Your task to perform on an android device: Show the shopping cart on walmart.com. Add macbook pro 13 inch to the cart on walmart.com Image 0: 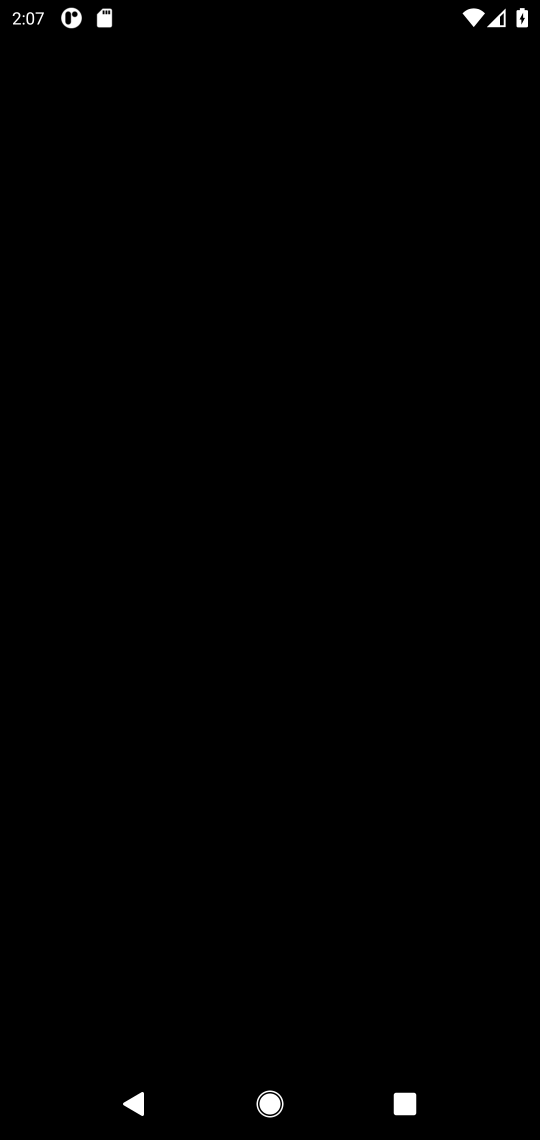
Step 0: press home button
Your task to perform on an android device: Show the shopping cart on walmart.com. Add macbook pro 13 inch to the cart on walmart.com Image 1: 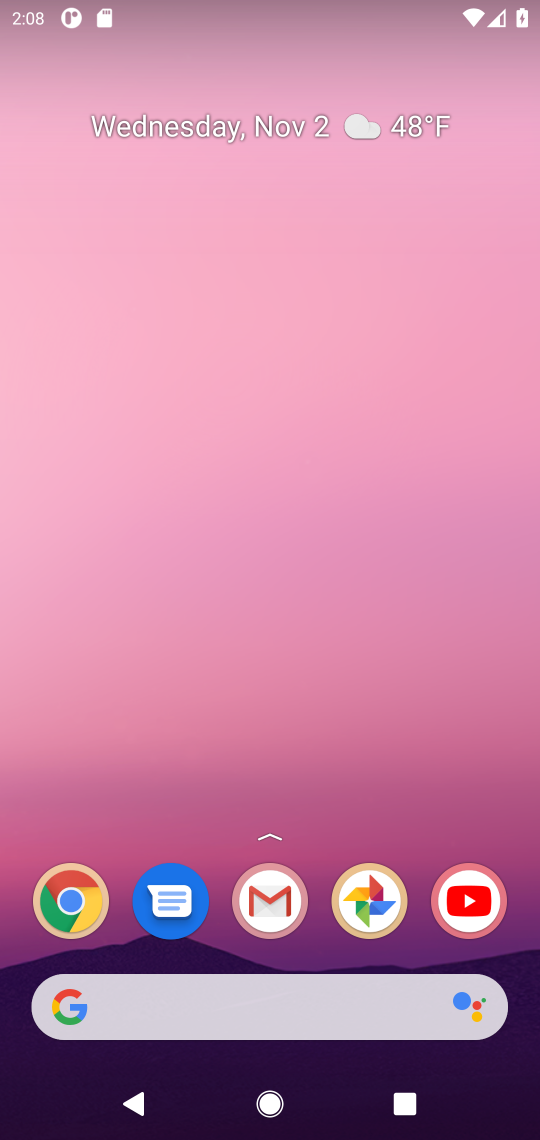
Step 1: drag from (221, 952) to (283, 218)
Your task to perform on an android device: Show the shopping cart on walmart.com. Add macbook pro 13 inch to the cart on walmart.com Image 2: 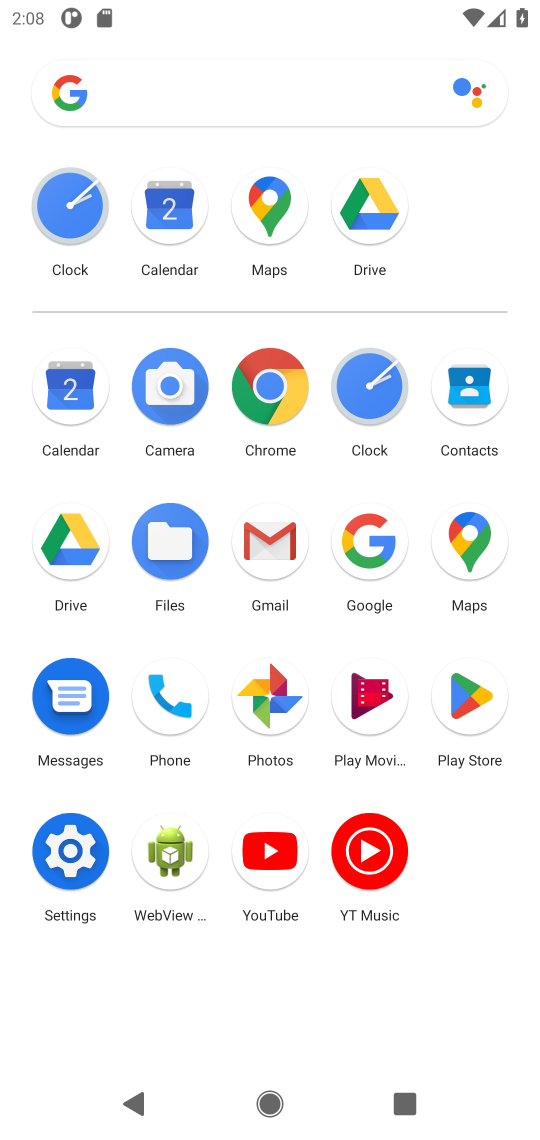
Step 2: click (278, 388)
Your task to perform on an android device: Show the shopping cart on walmart.com. Add macbook pro 13 inch to the cart on walmart.com Image 3: 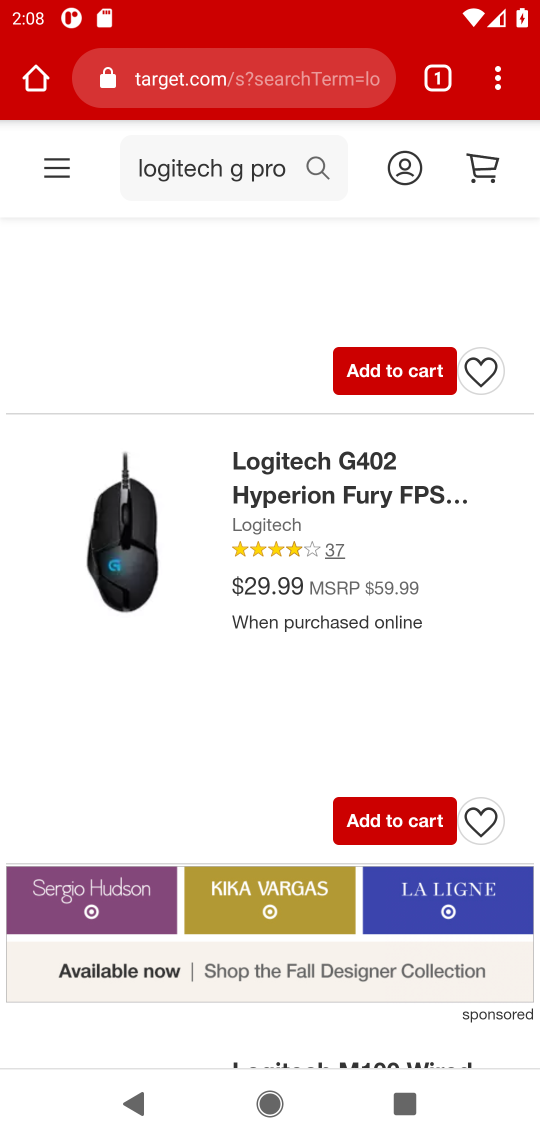
Step 3: click (287, 72)
Your task to perform on an android device: Show the shopping cart on walmart.com. Add macbook pro 13 inch to the cart on walmart.com Image 4: 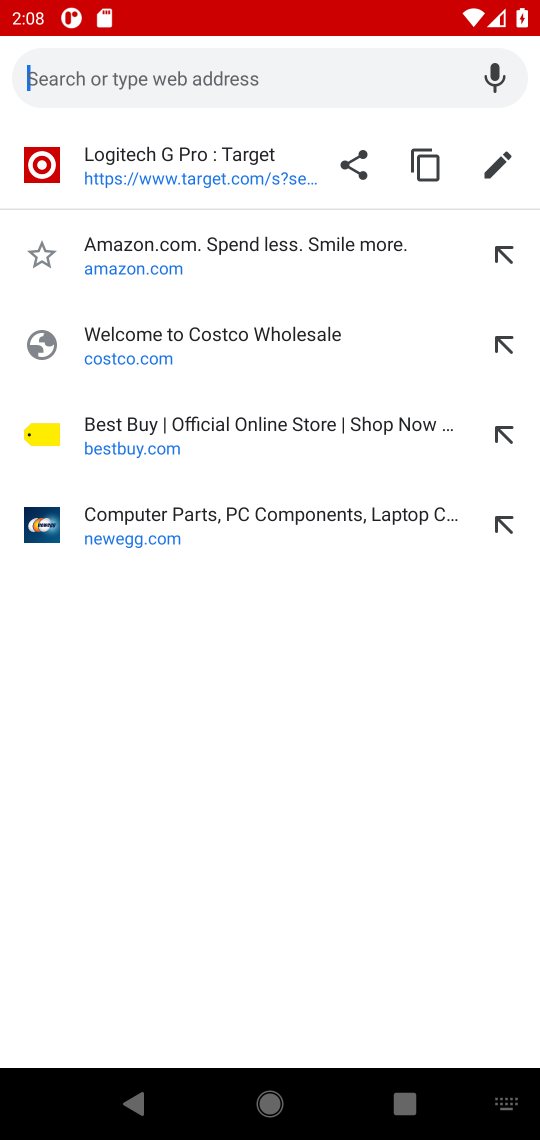
Step 4: type "walmart.com"
Your task to perform on an android device: Show the shopping cart on walmart.com. Add macbook pro 13 inch to the cart on walmart.com Image 5: 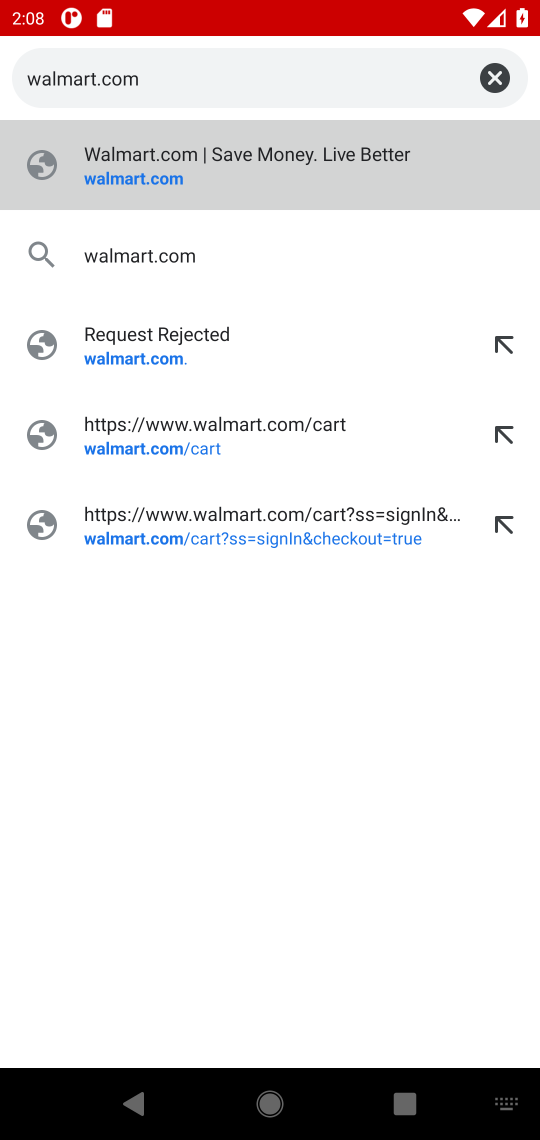
Step 5: press enter
Your task to perform on an android device: Show the shopping cart on walmart.com. Add macbook pro 13 inch to the cart on walmart.com Image 6: 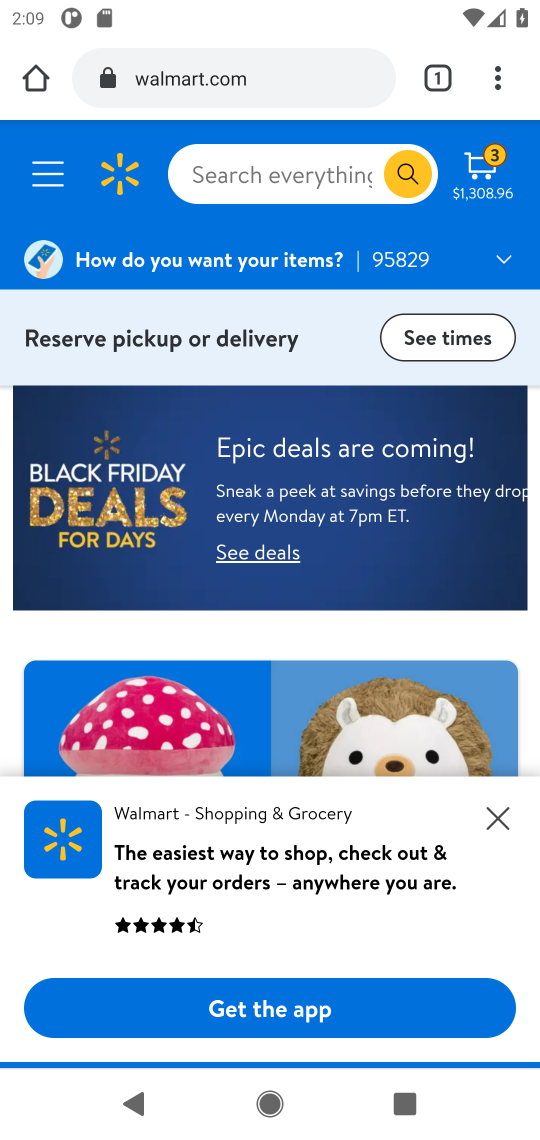
Step 6: click (279, 169)
Your task to perform on an android device: Show the shopping cart on walmart.com. Add macbook pro 13 inch to the cart on walmart.com Image 7: 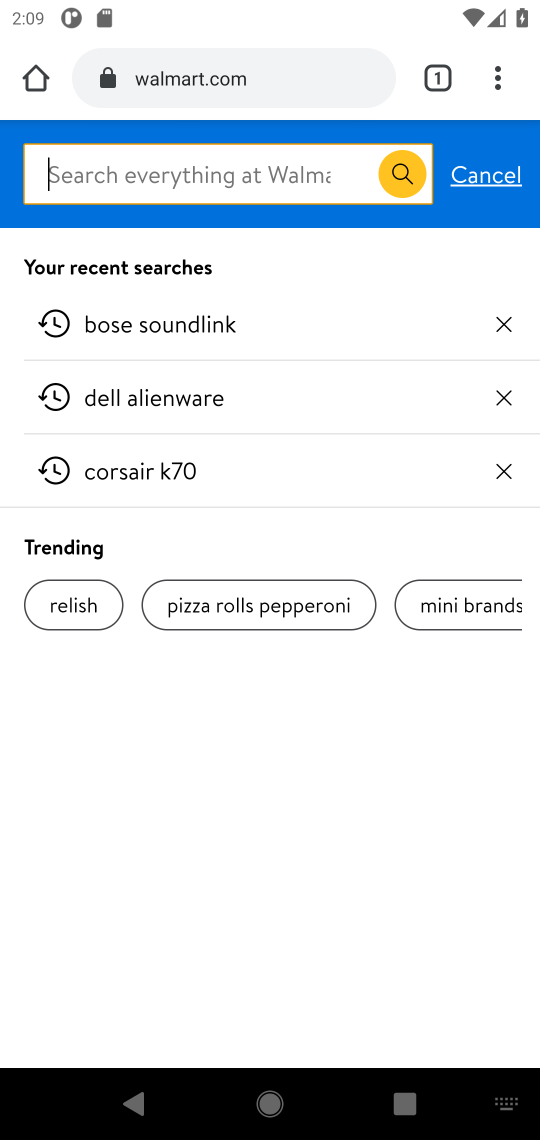
Step 7: type "macbook pro 13"
Your task to perform on an android device: Show the shopping cart on walmart.com. Add macbook pro 13 inch to the cart on walmart.com Image 8: 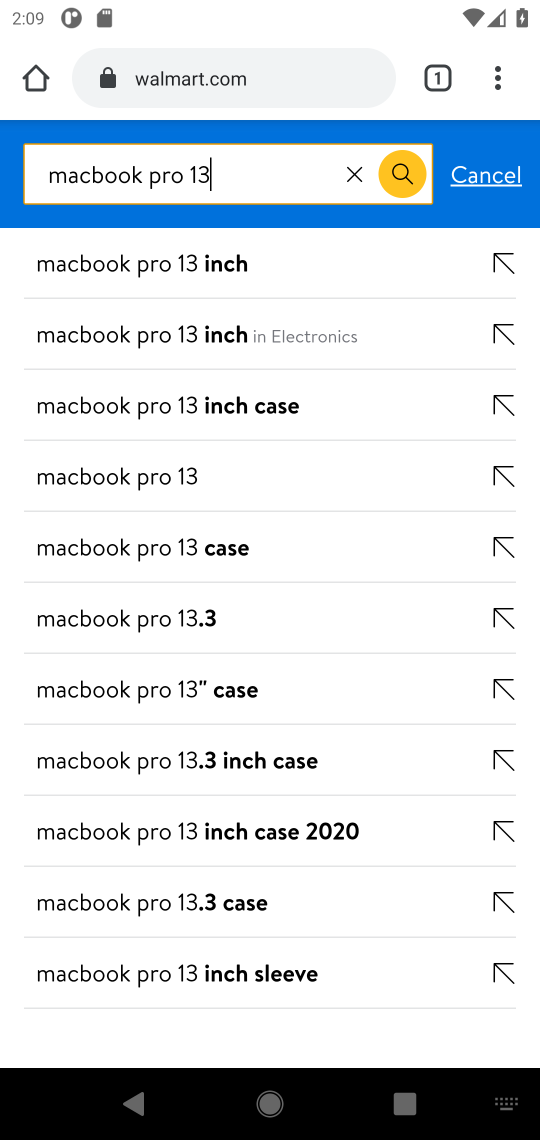
Step 8: press enter
Your task to perform on an android device: Show the shopping cart on walmart.com. Add macbook pro 13 inch to the cart on walmart.com Image 9: 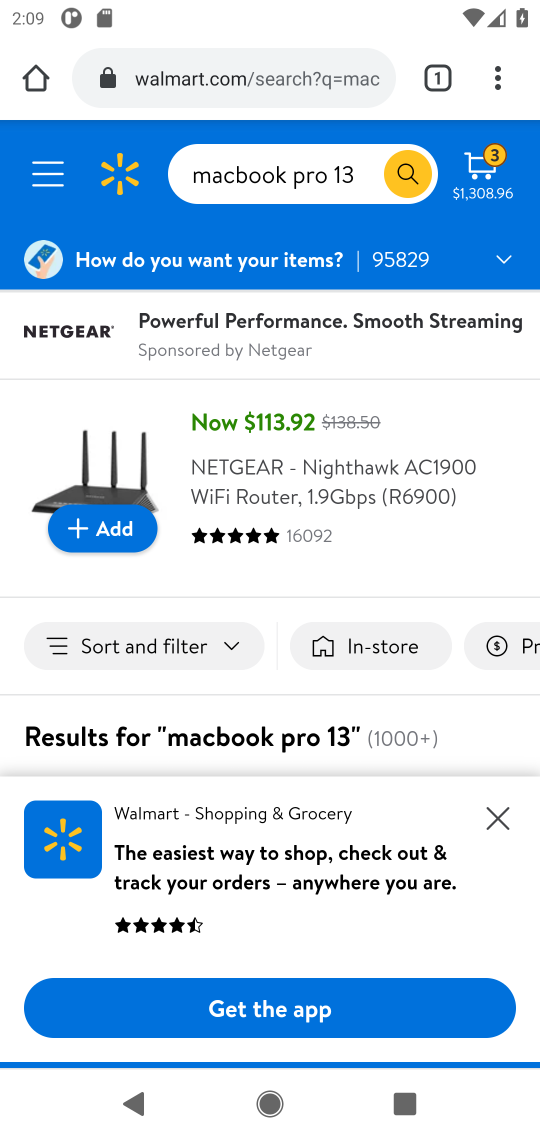
Step 9: drag from (324, 745) to (375, 302)
Your task to perform on an android device: Show the shopping cart on walmart.com. Add macbook pro 13 inch to the cart on walmart.com Image 10: 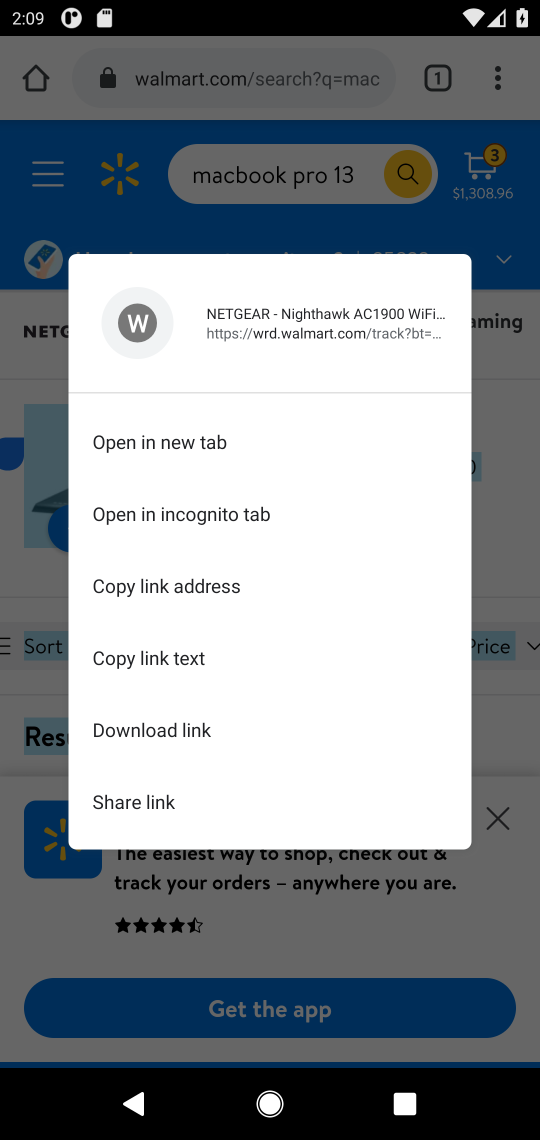
Step 10: click (494, 487)
Your task to perform on an android device: Show the shopping cart on walmart.com. Add macbook pro 13 inch to the cart on walmart.com Image 11: 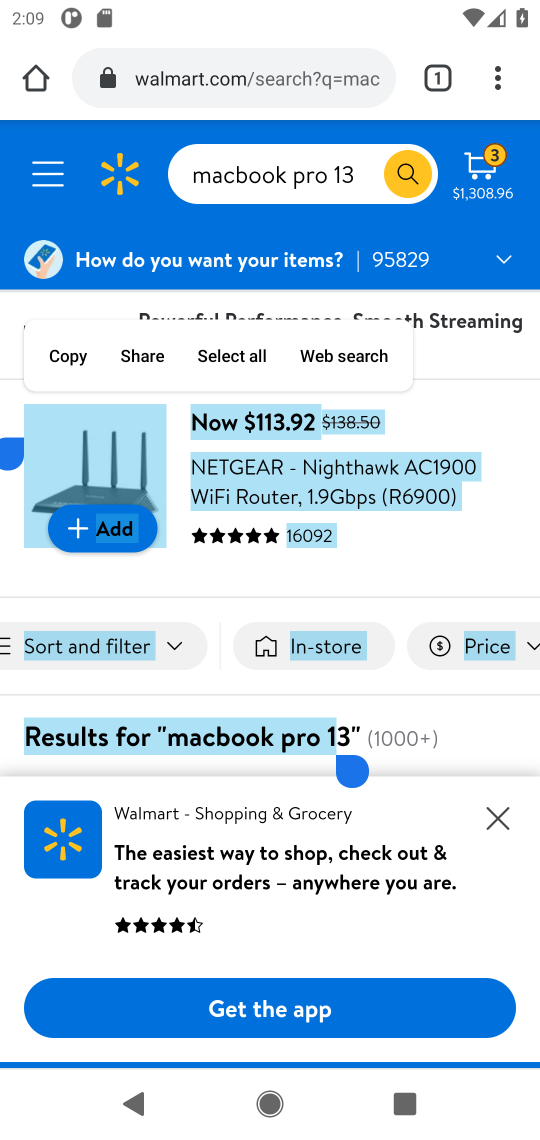
Step 11: click (456, 740)
Your task to perform on an android device: Show the shopping cart on walmart.com. Add macbook pro 13 inch to the cart on walmart.com Image 12: 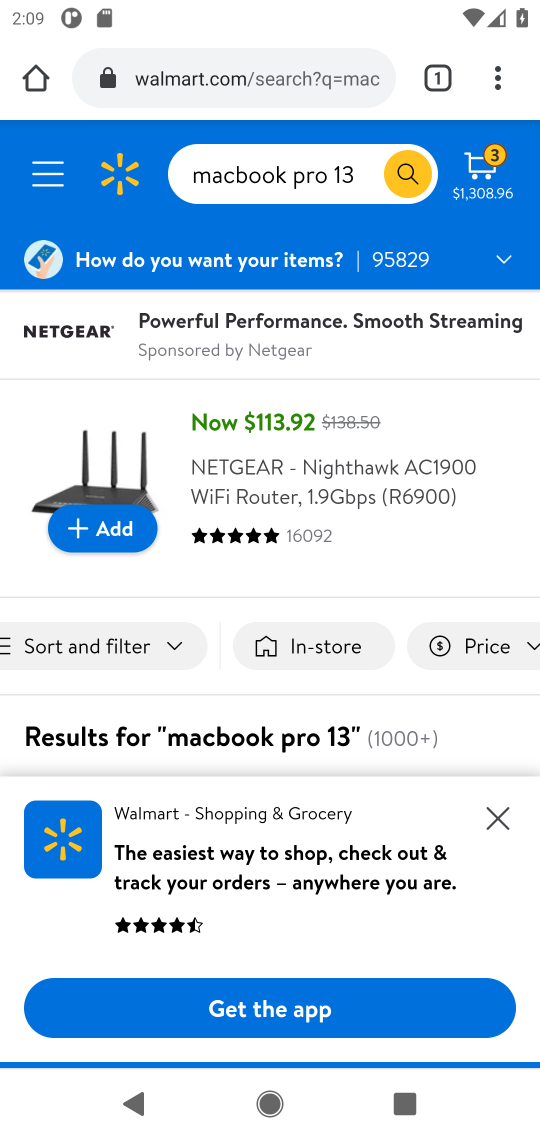
Step 12: drag from (456, 740) to (439, 309)
Your task to perform on an android device: Show the shopping cart on walmart.com. Add macbook pro 13 inch to the cart on walmart.com Image 13: 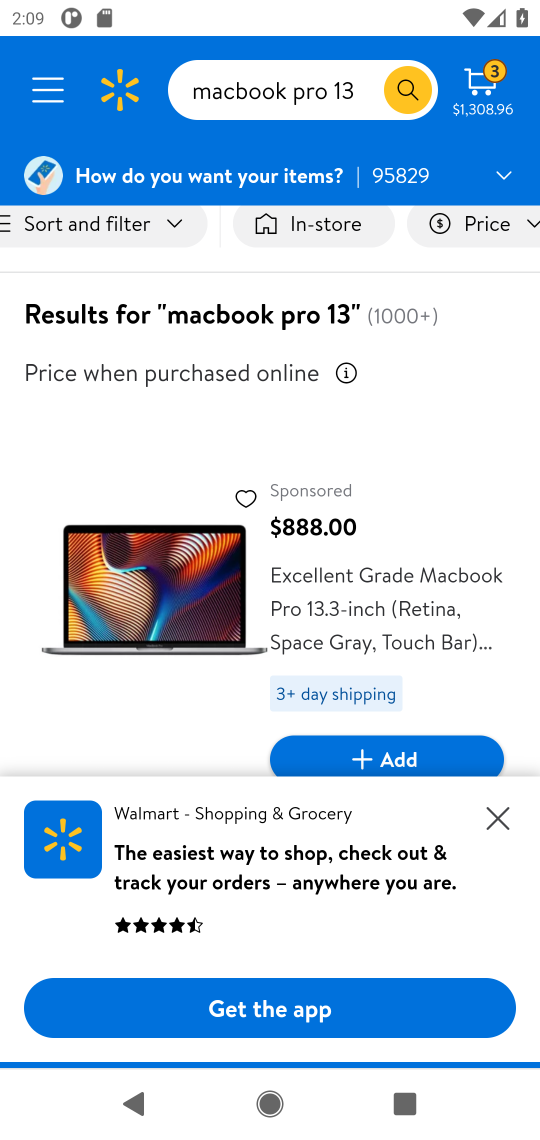
Step 13: drag from (406, 469) to (345, 229)
Your task to perform on an android device: Show the shopping cart on walmart.com. Add macbook pro 13 inch to the cart on walmart.com Image 14: 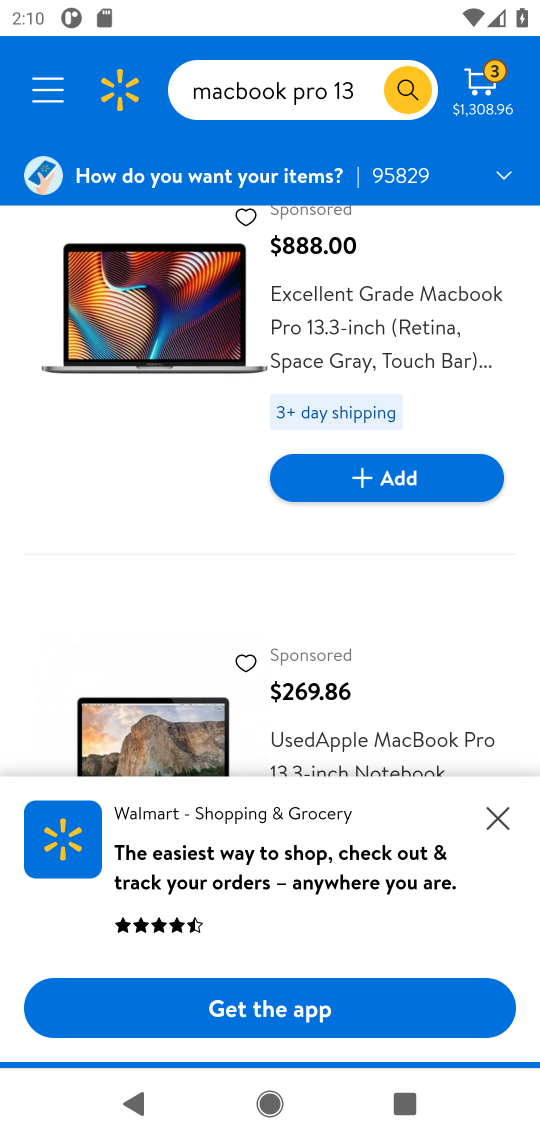
Step 14: drag from (362, 682) to (370, 222)
Your task to perform on an android device: Show the shopping cart on walmart.com. Add macbook pro 13 inch to the cart on walmart.com Image 15: 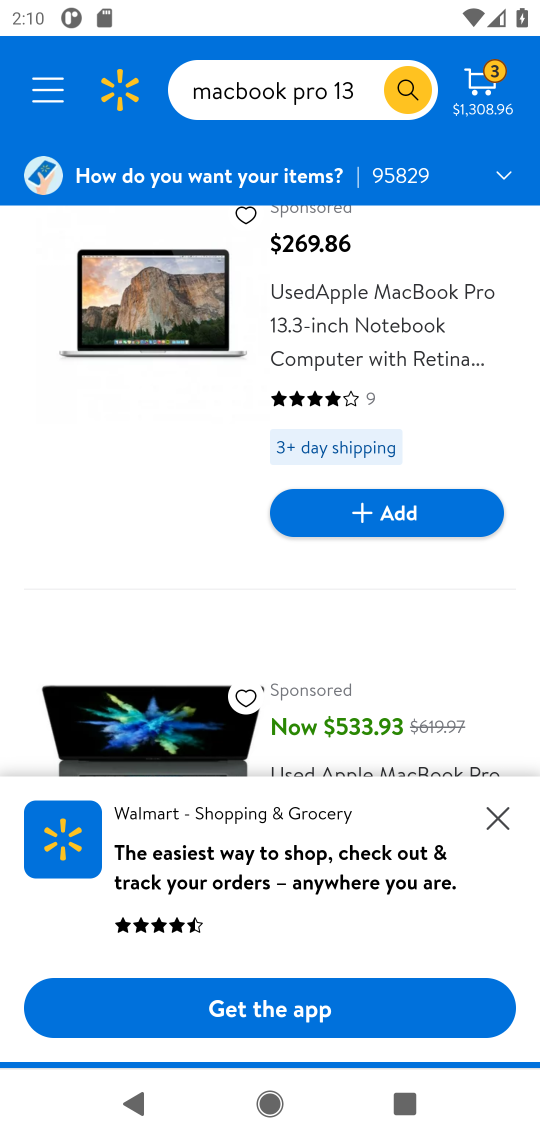
Step 15: drag from (367, 714) to (410, 300)
Your task to perform on an android device: Show the shopping cart on walmart.com. Add macbook pro 13 inch to the cart on walmart.com Image 16: 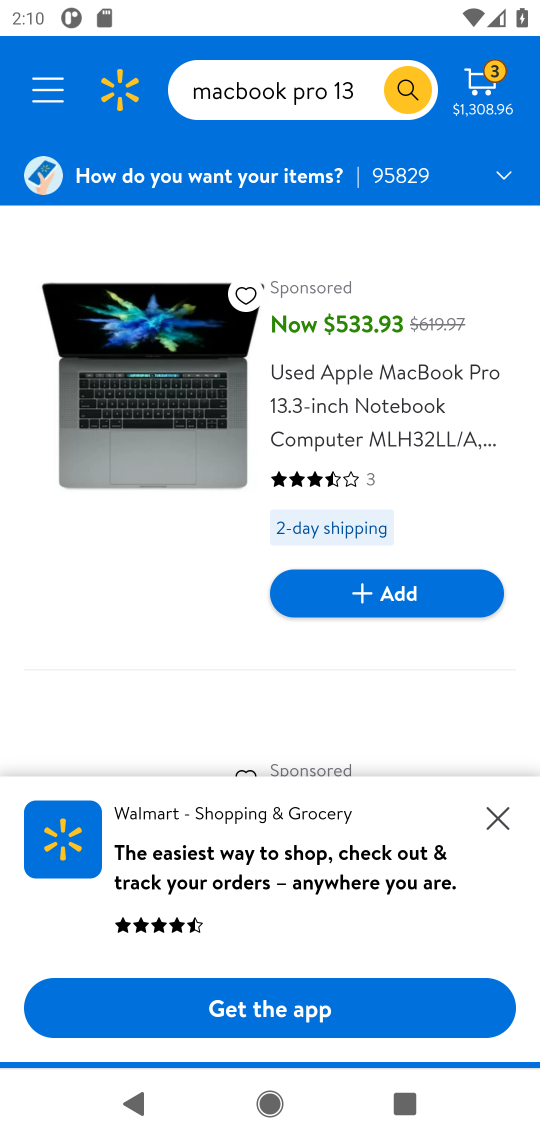
Step 16: drag from (404, 695) to (380, 269)
Your task to perform on an android device: Show the shopping cart on walmart.com. Add macbook pro 13 inch to the cart on walmart.com Image 17: 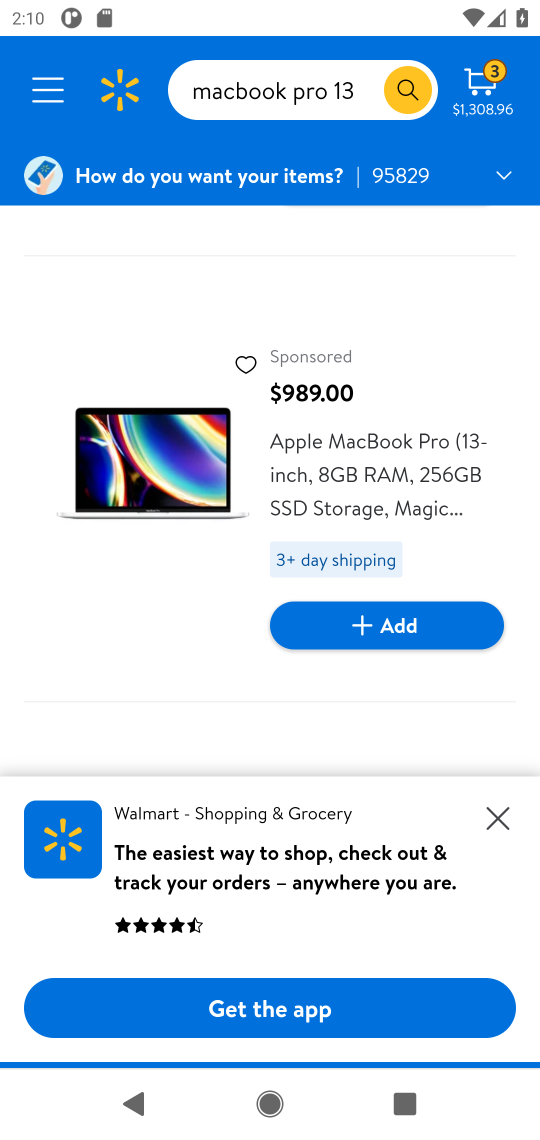
Step 17: drag from (402, 711) to (389, 253)
Your task to perform on an android device: Show the shopping cart on walmart.com. Add macbook pro 13 inch to the cart on walmart.com Image 18: 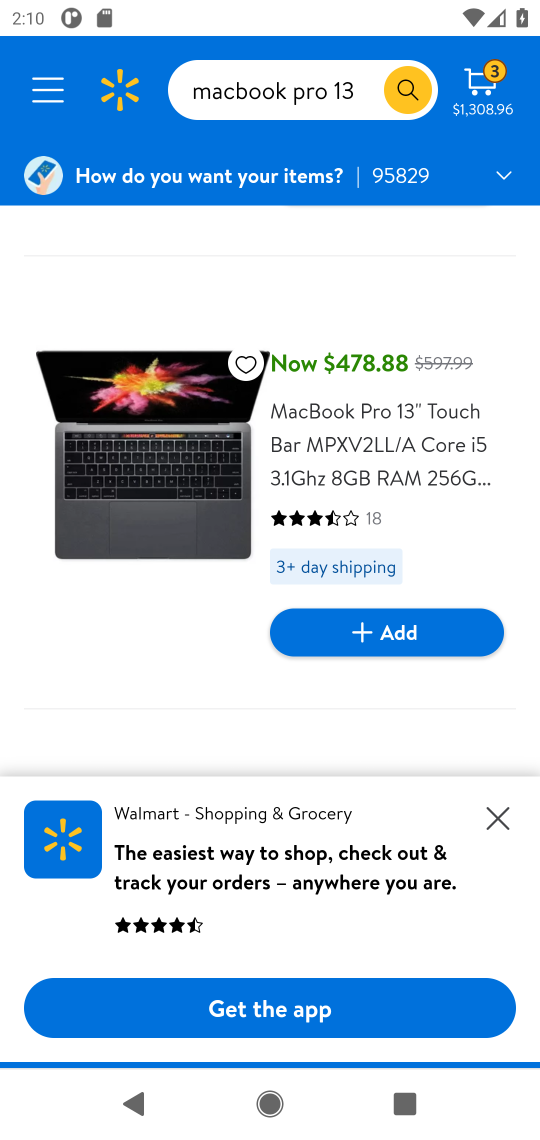
Step 18: click (394, 629)
Your task to perform on an android device: Show the shopping cart on walmart.com. Add macbook pro 13 inch to the cart on walmart.com Image 19: 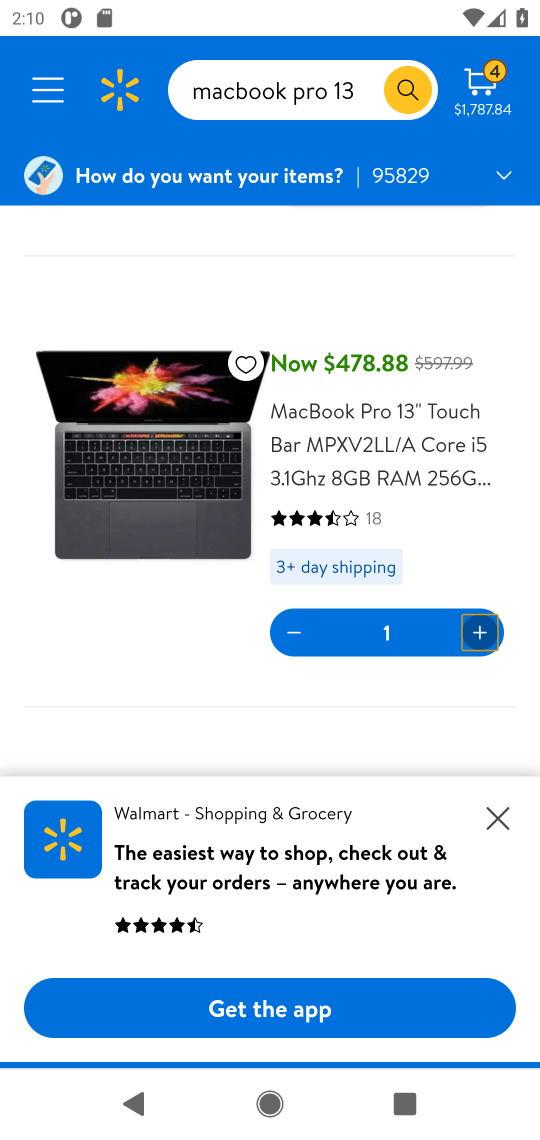
Step 19: task complete